Your task to perform on an android device: toggle show notifications on the lock screen Image 0: 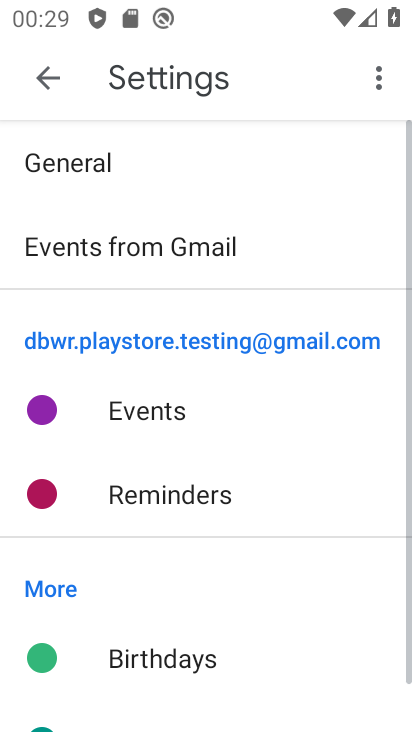
Step 0: press home button
Your task to perform on an android device: toggle show notifications on the lock screen Image 1: 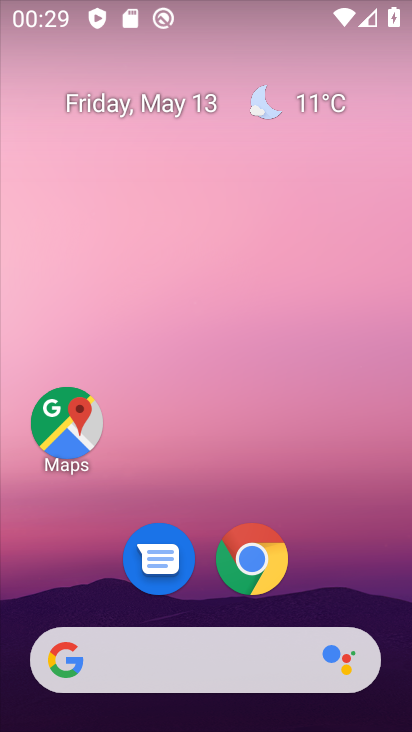
Step 1: drag from (103, 565) to (108, 136)
Your task to perform on an android device: toggle show notifications on the lock screen Image 2: 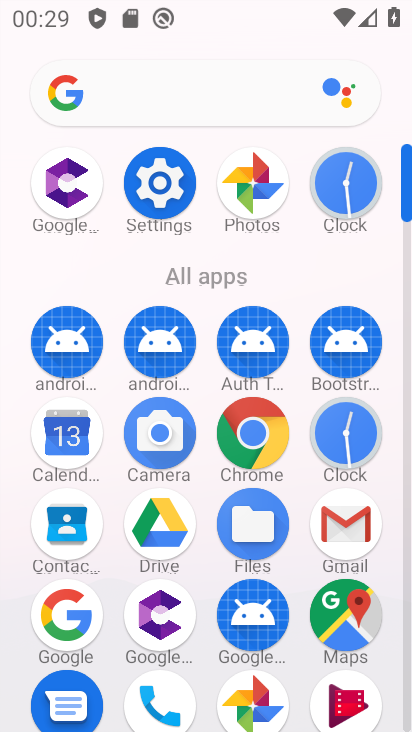
Step 2: drag from (291, 576) to (275, 170)
Your task to perform on an android device: toggle show notifications on the lock screen Image 3: 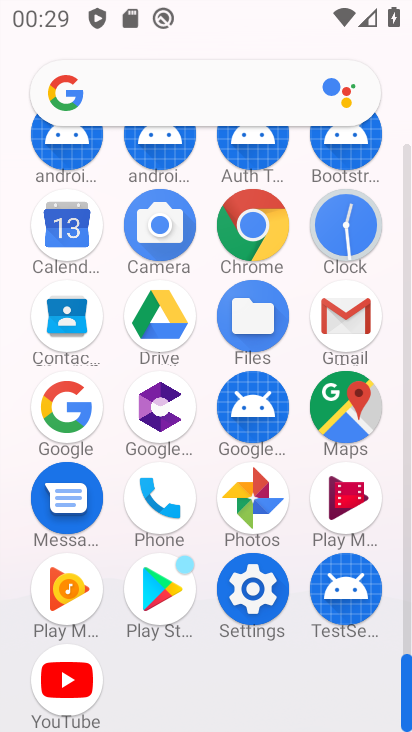
Step 3: click (254, 601)
Your task to perform on an android device: toggle show notifications on the lock screen Image 4: 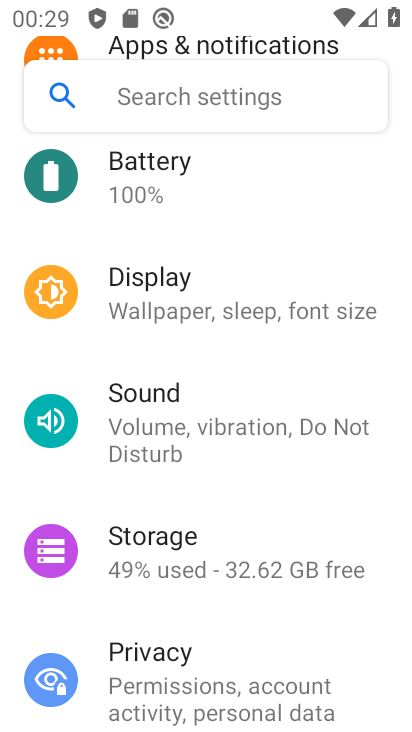
Step 4: drag from (208, 251) to (201, 551)
Your task to perform on an android device: toggle show notifications on the lock screen Image 5: 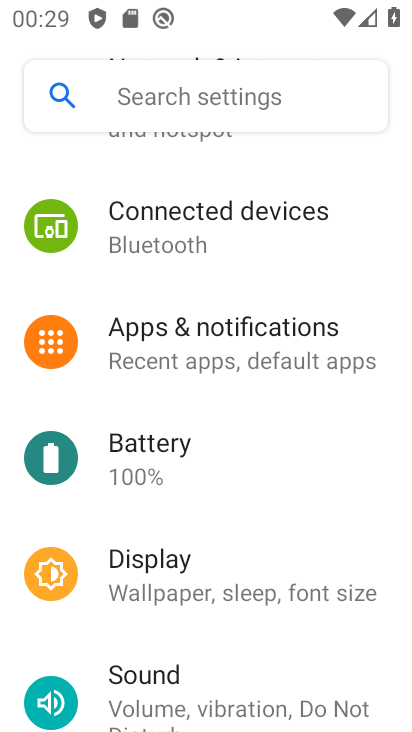
Step 5: click (200, 374)
Your task to perform on an android device: toggle show notifications on the lock screen Image 6: 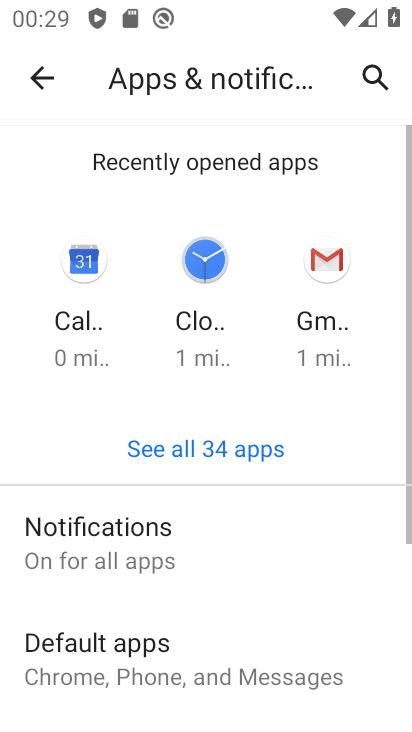
Step 6: click (161, 542)
Your task to perform on an android device: toggle show notifications on the lock screen Image 7: 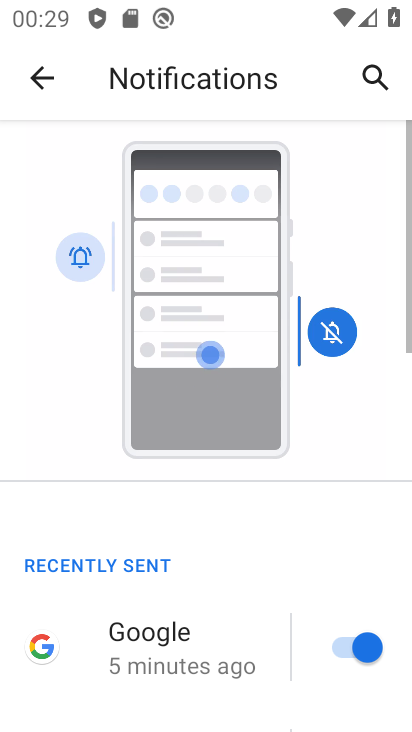
Step 7: drag from (246, 518) to (295, 24)
Your task to perform on an android device: toggle show notifications on the lock screen Image 8: 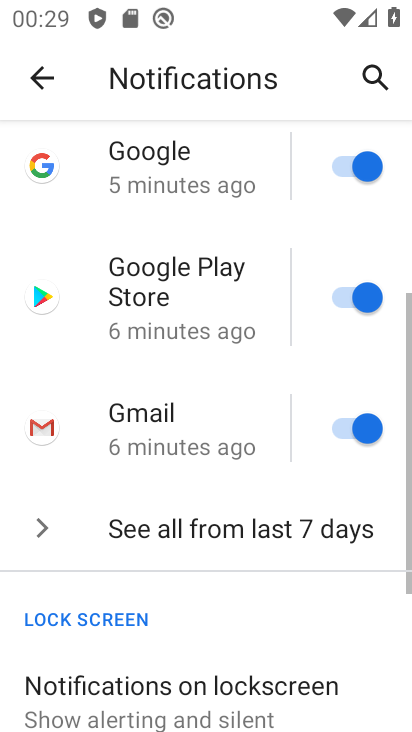
Step 8: drag from (224, 548) to (244, 155)
Your task to perform on an android device: toggle show notifications on the lock screen Image 9: 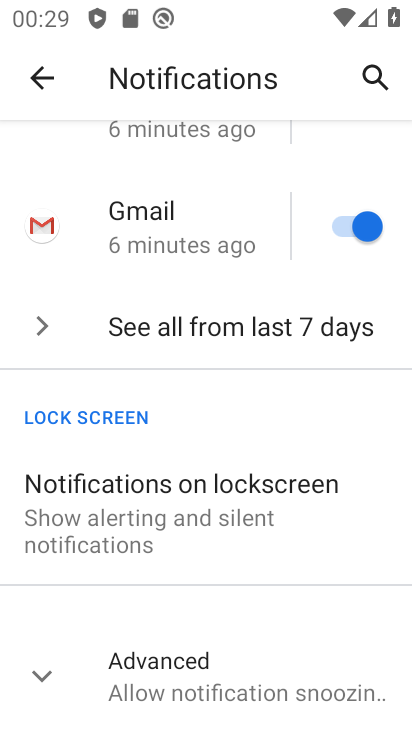
Step 9: click (163, 521)
Your task to perform on an android device: toggle show notifications on the lock screen Image 10: 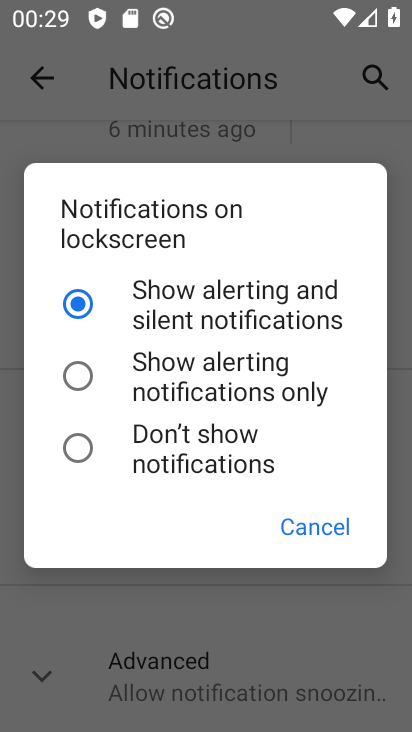
Step 10: click (88, 450)
Your task to perform on an android device: toggle show notifications on the lock screen Image 11: 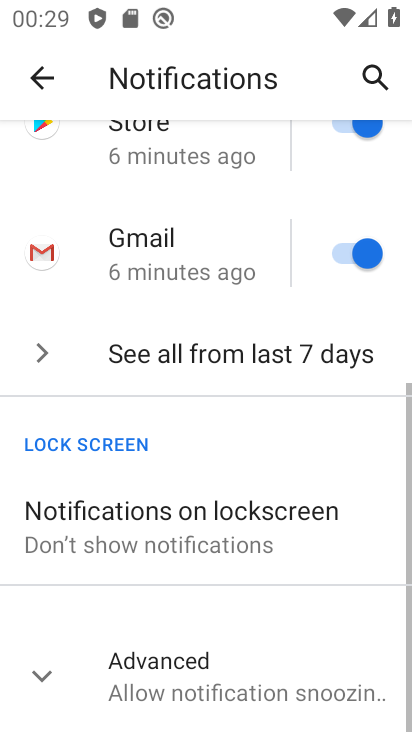
Step 11: task complete